Your task to perform on an android device: Check the weather Image 0: 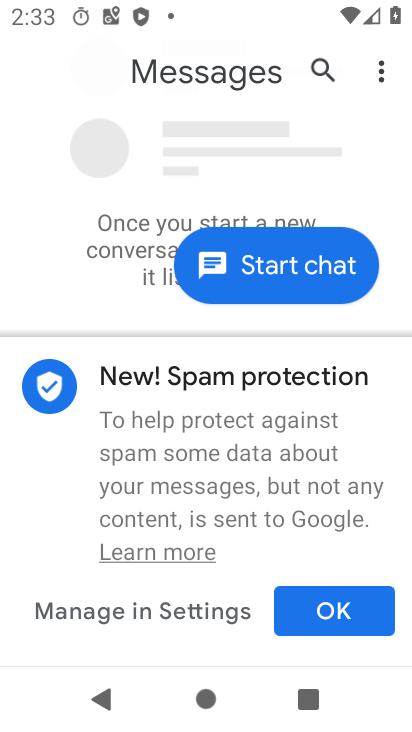
Step 0: press home button
Your task to perform on an android device: Check the weather Image 1: 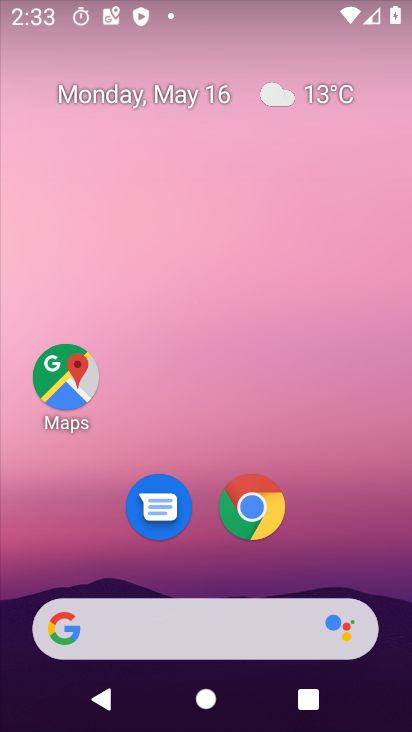
Step 1: click (202, 641)
Your task to perform on an android device: Check the weather Image 2: 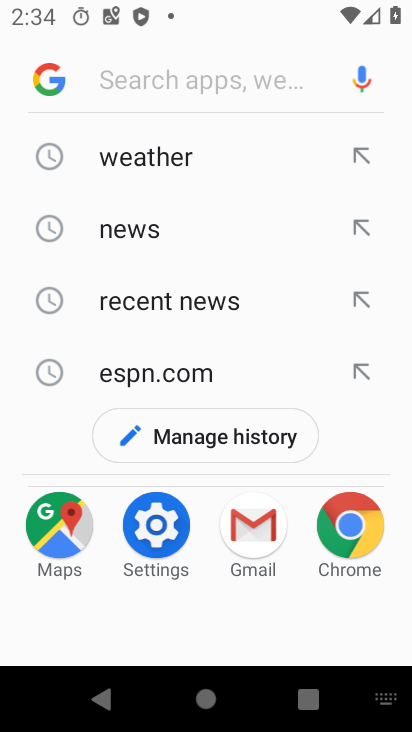
Step 2: click (157, 172)
Your task to perform on an android device: Check the weather Image 3: 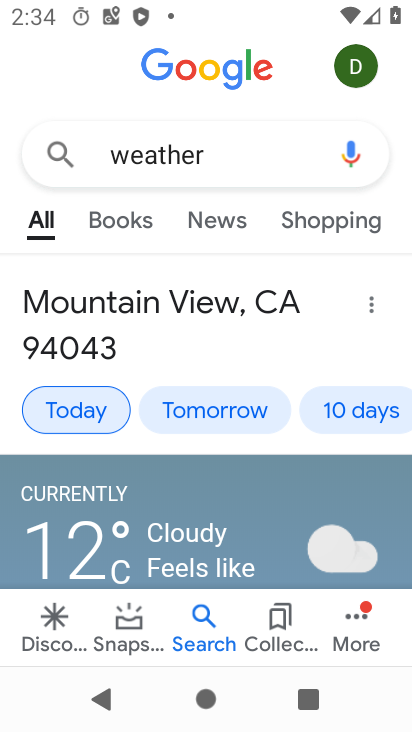
Step 3: drag from (293, 537) to (292, 359)
Your task to perform on an android device: Check the weather Image 4: 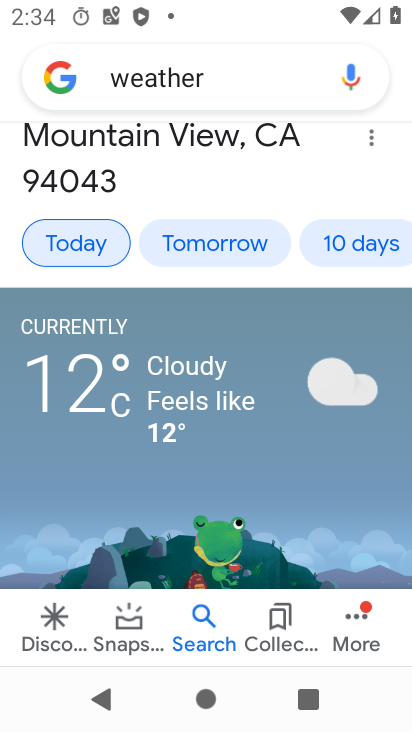
Step 4: drag from (301, 527) to (299, 366)
Your task to perform on an android device: Check the weather Image 5: 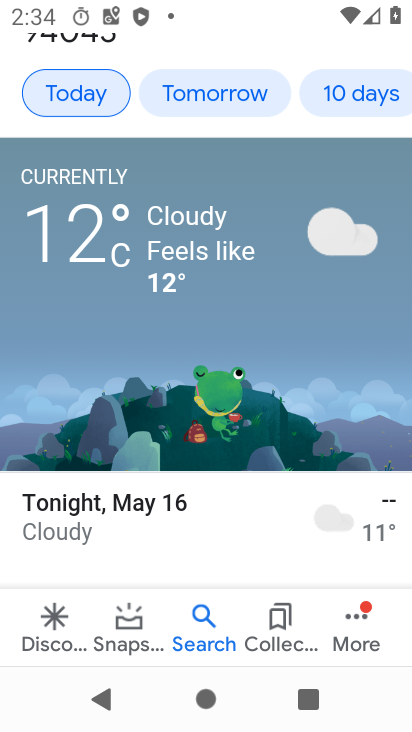
Step 5: drag from (269, 534) to (268, 424)
Your task to perform on an android device: Check the weather Image 6: 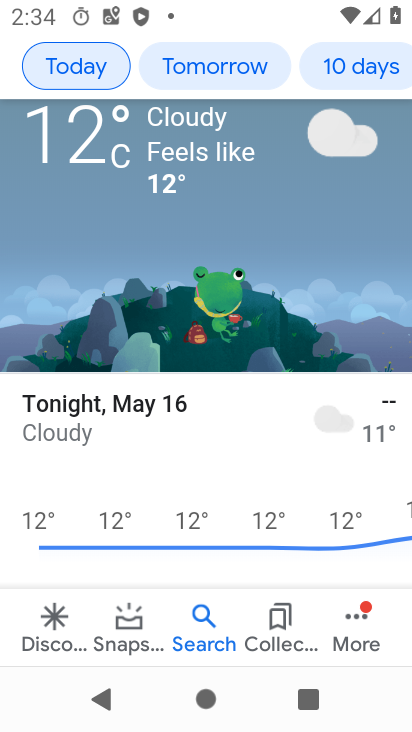
Step 6: press home button
Your task to perform on an android device: Check the weather Image 7: 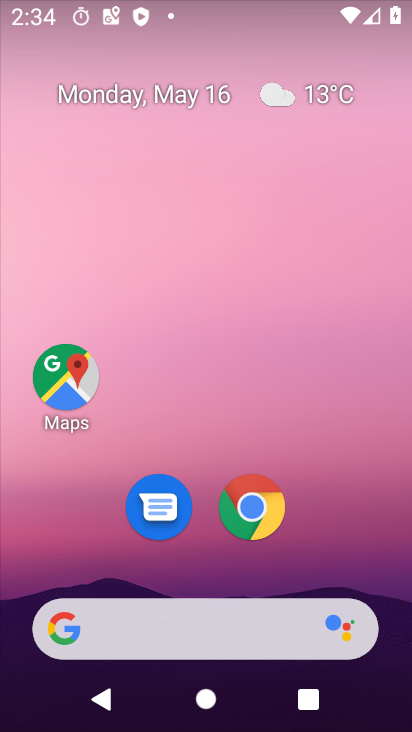
Step 7: click (254, 635)
Your task to perform on an android device: Check the weather Image 8: 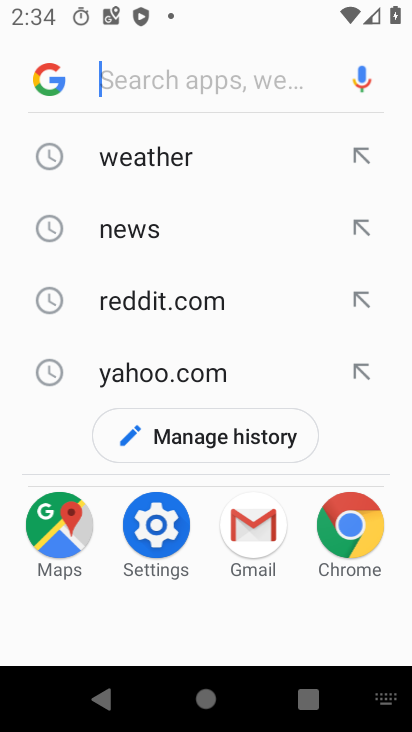
Step 8: click (185, 160)
Your task to perform on an android device: Check the weather Image 9: 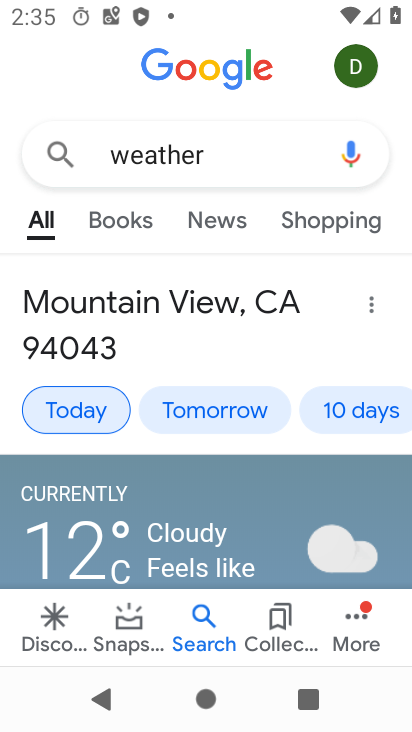
Step 9: task complete